Your task to perform on an android device: turn off location Image 0: 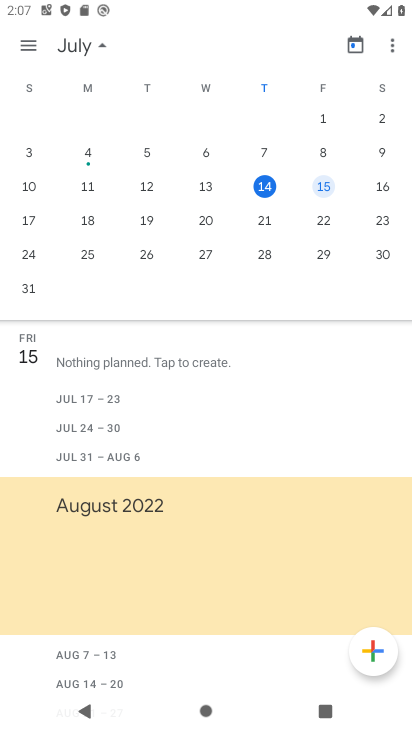
Step 0: press home button
Your task to perform on an android device: turn off location Image 1: 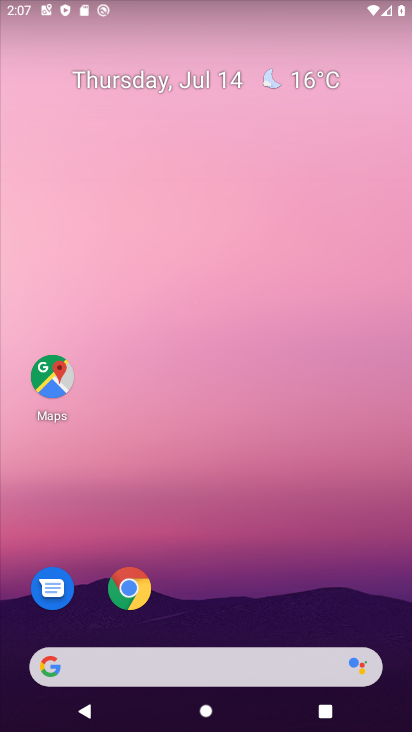
Step 1: drag from (274, 564) to (292, 0)
Your task to perform on an android device: turn off location Image 2: 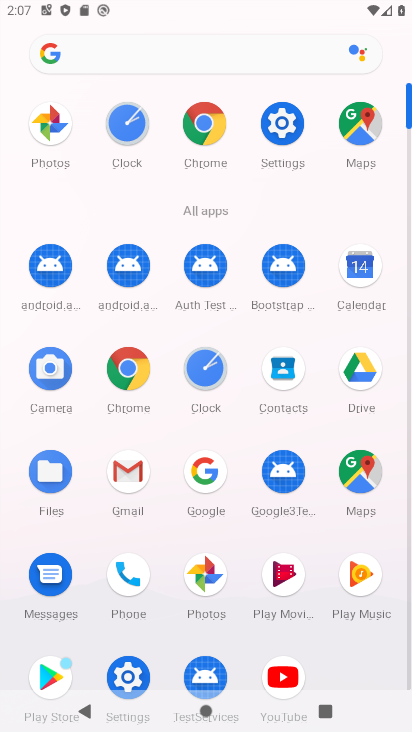
Step 2: click (283, 131)
Your task to perform on an android device: turn off location Image 3: 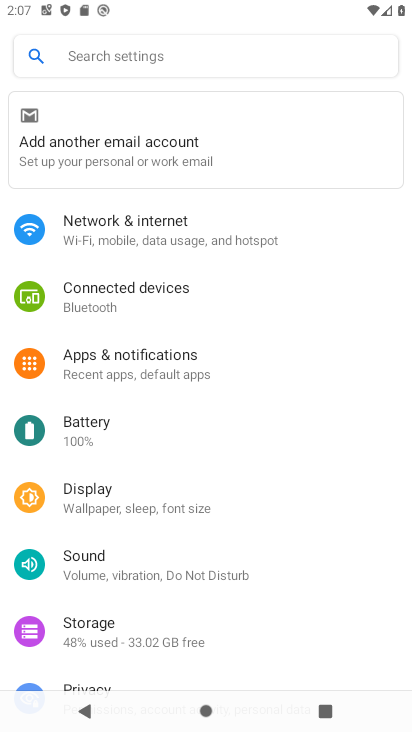
Step 3: drag from (152, 610) to (237, 208)
Your task to perform on an android device: turn off location Image 4: 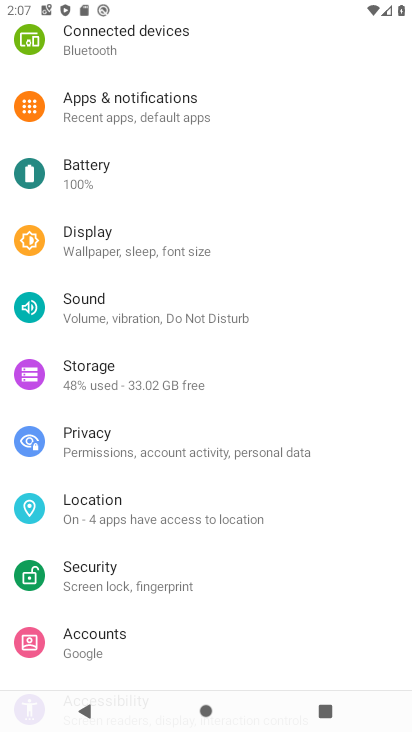
Step 4: click (140, 523)
Your task to perform on an android device: turn off location Image 5: 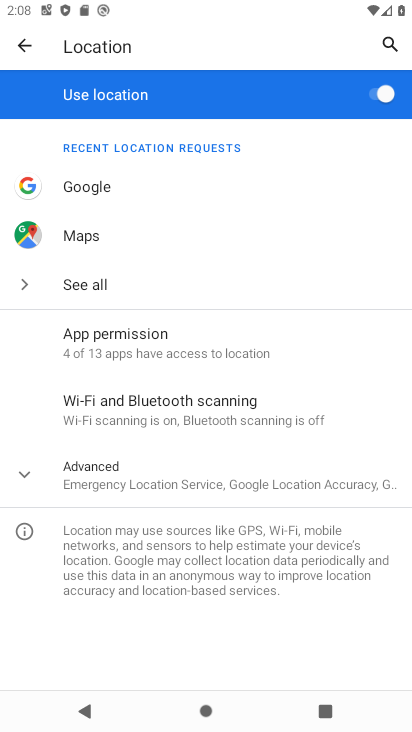
Step 5: click (228, 482)
Your task to perform on an android device: turn off location Image 6: 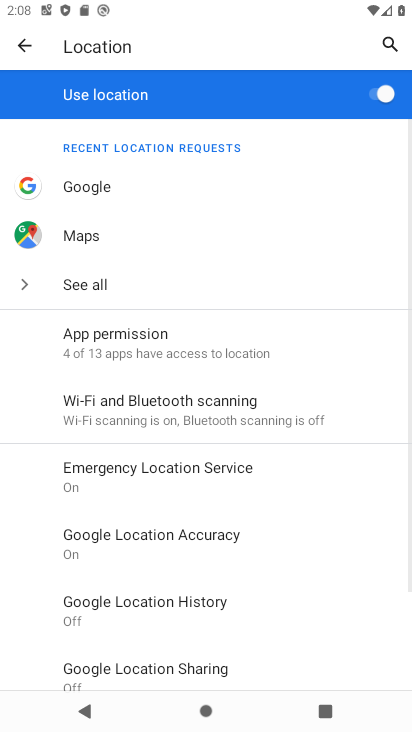
Step 6: click (372, 92)
Your task to perform on an android device: turn off location Image 7: 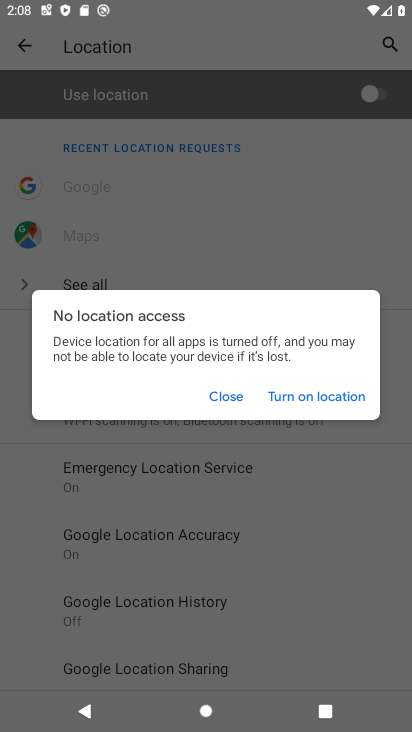
Step 7: task complete